Your task to perform on an android device: Go to Yahoo.com Image 0: 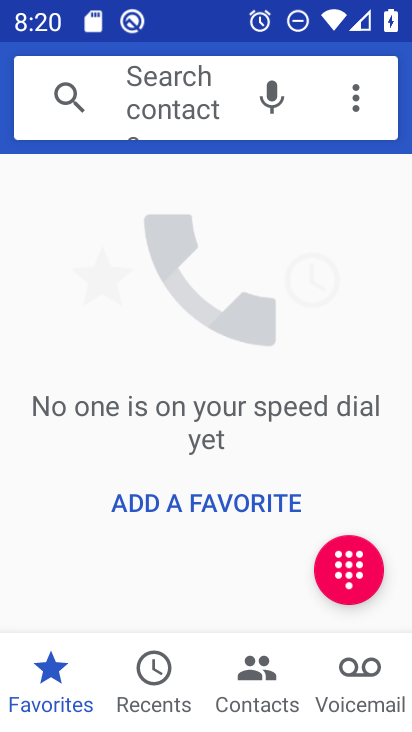
Step 0: press home button
Your task to perform on an android device: Go to Yahoo.com Image 1: 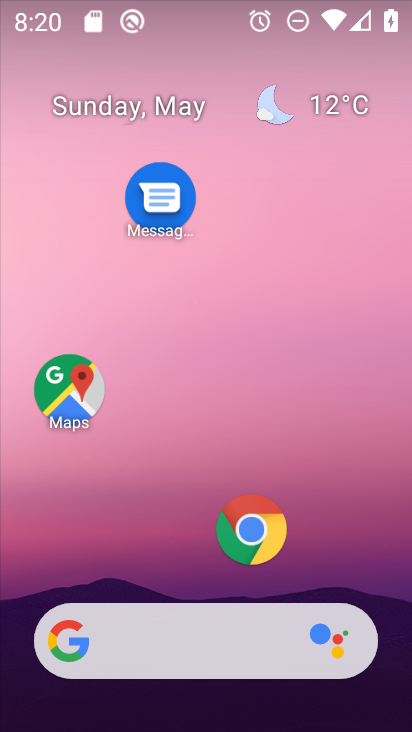
Step 1: click (253, 526)
Your task to perform on an android device: Go to Yahoo.com Image 2: 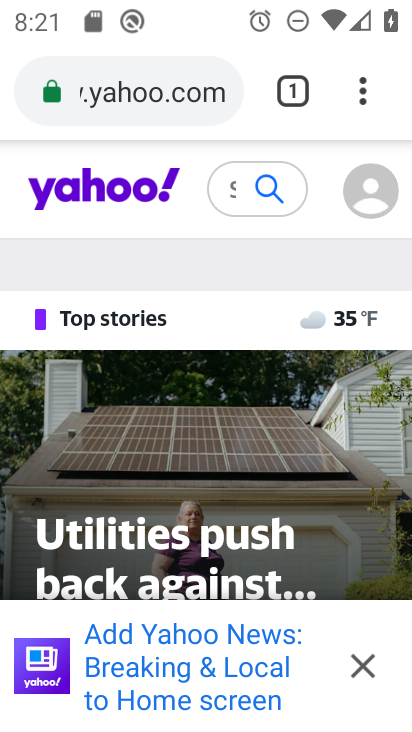
Step 2: task complete